Your task to perform on an android device: turn on javascript in the chrome app Image 0: 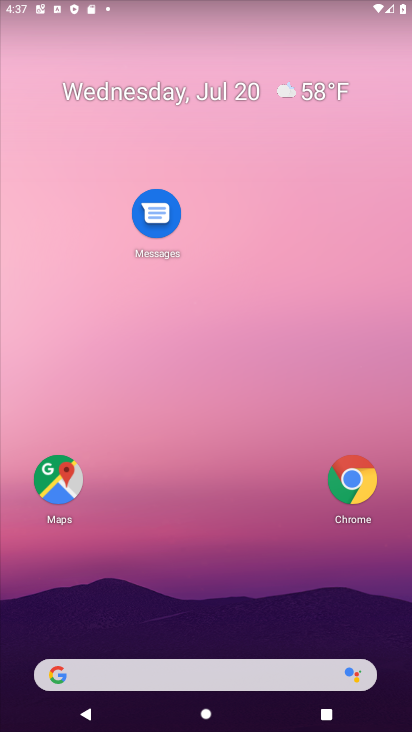
Step 0: click (171, 636)
Your task to perform on an android device: turn on javascript in the chrome app Image 1: 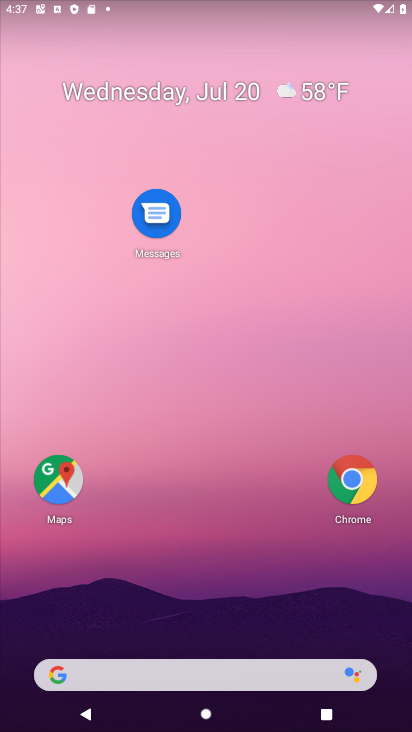
Step 1: drag from (171, 617) to (163, 222)
Your task to perform on an android device: turn on javascript in the chrome app Image 2: 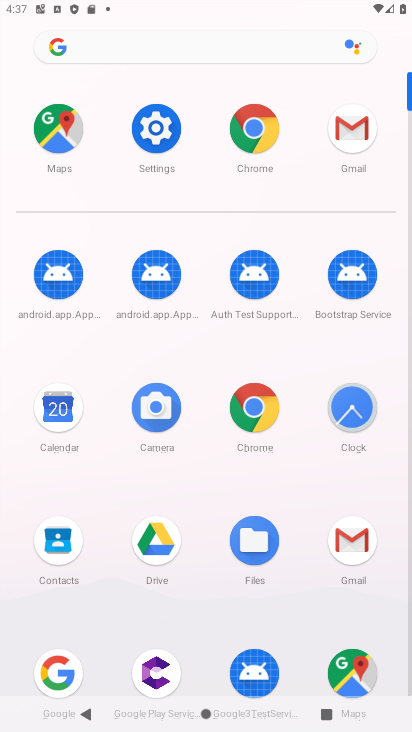
Step 2: click (241, 150)
Your task to perform on an android device: turn on javascript in the chrome app Image 3: 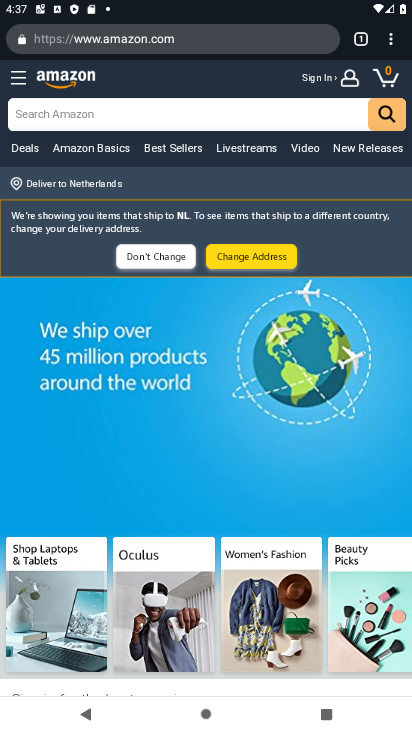
Step 3: click (393, 41)
Your task to perform on an android device: turn on javascript in the chrome app Image 4: 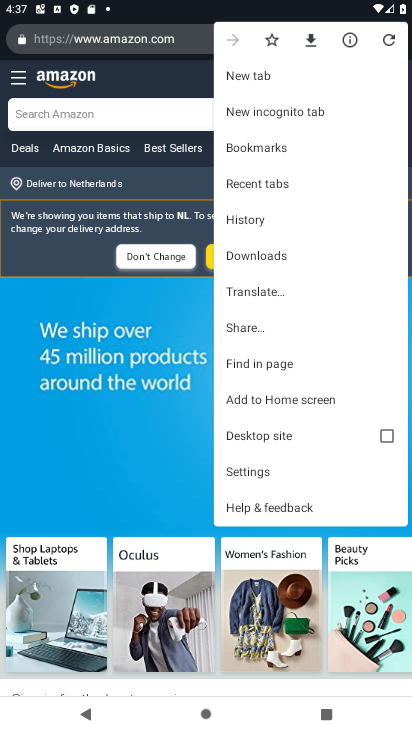
Step 4: click (240, 476)
Your task to perform on an android device: turn on javascript in the chrome app Image 5: 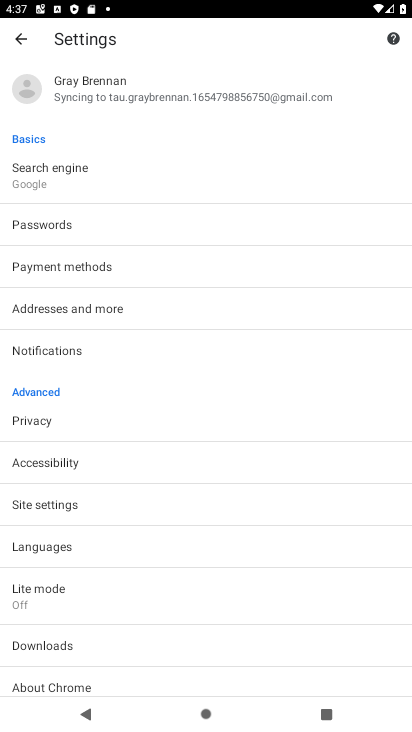
Step 5: click (35, 500)
Your task to perform on an android device: turn on javascript in the chrome app Image 6: 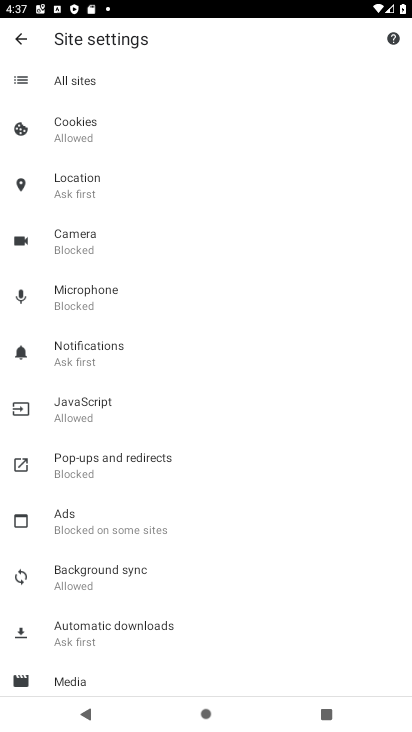
Step 6: click (89, 396)
Your task to perform on an android device: turn on javascript in the chrome app Image 7: 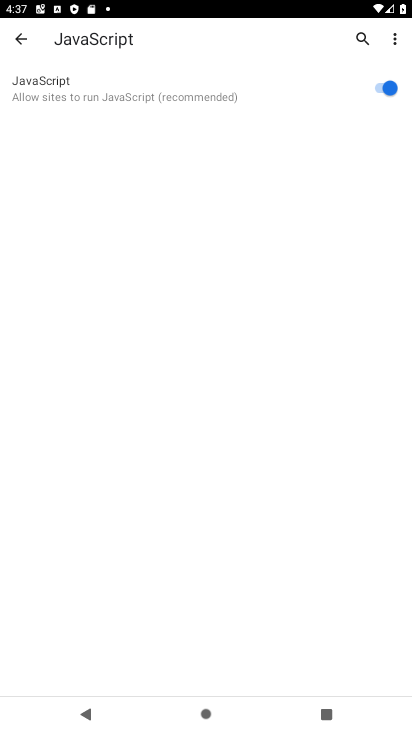
Step 7: task complete